Your task to perform on an android device: Go to accessibility settings Image 0: 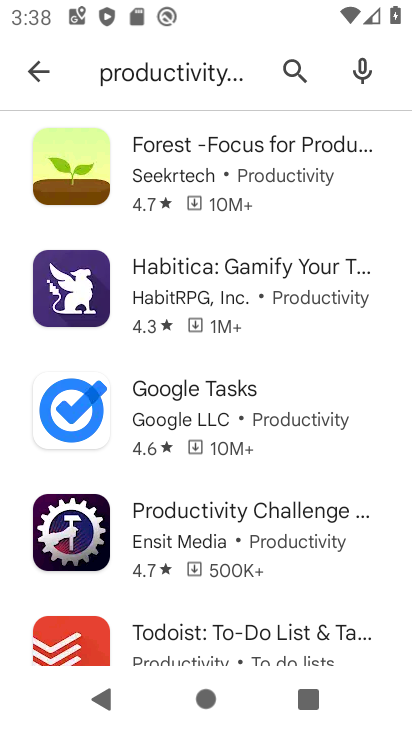
Step 0: press home button
Your task to perform on an android device: Go to accessibility settings Image 1: 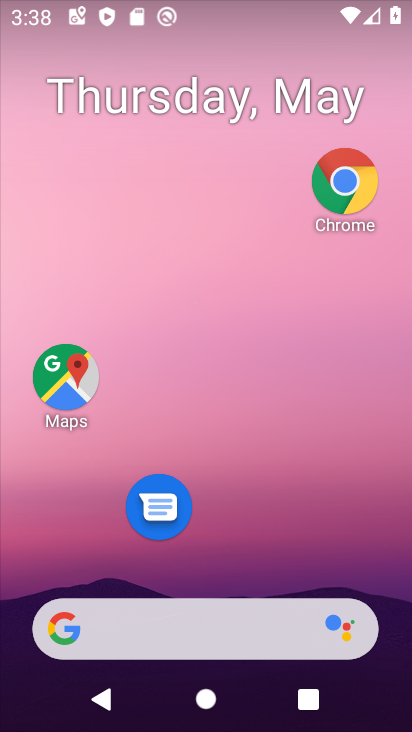
Step 1: drag from (312, 550) to (349, 102)
Your task to perform on an android device: Go to accessibility settings Image 2: 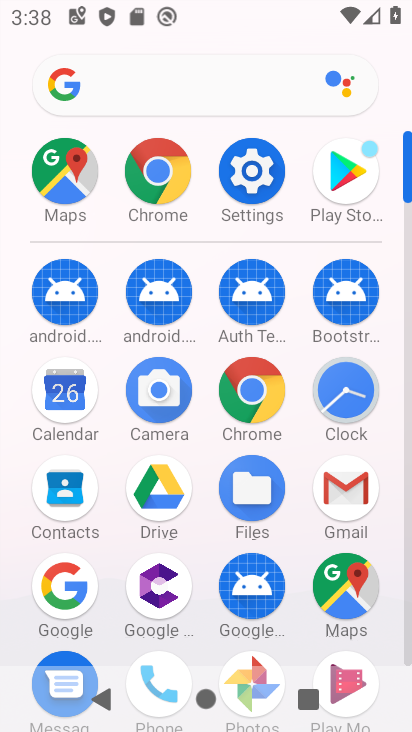
Step 2: click (248, 171)
Your task to perform on an android device: Go to accessibility settings Image 3: 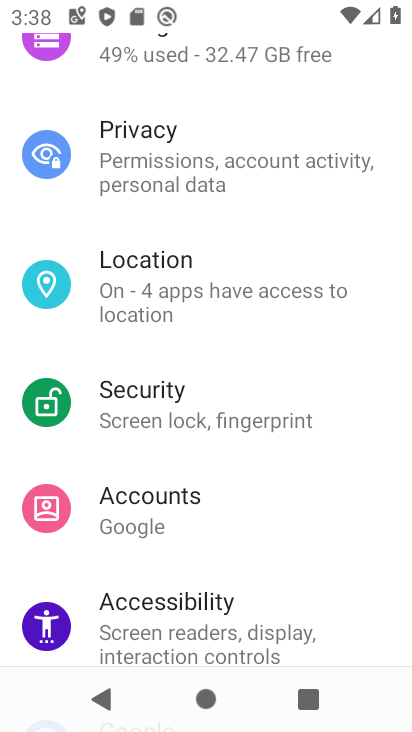
Step 3: click (180, 616)
Your task to perform on an android device: Go to accessibility settings Image 4: 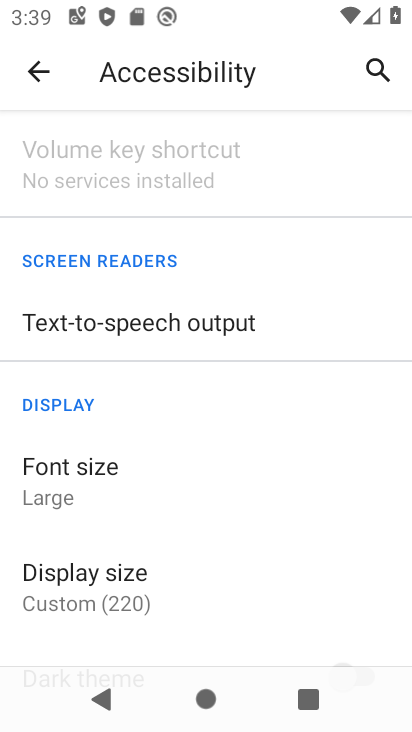
Step 4: task complete